Your task to perform on an android device: set default search engine in the chrome app Image 0: 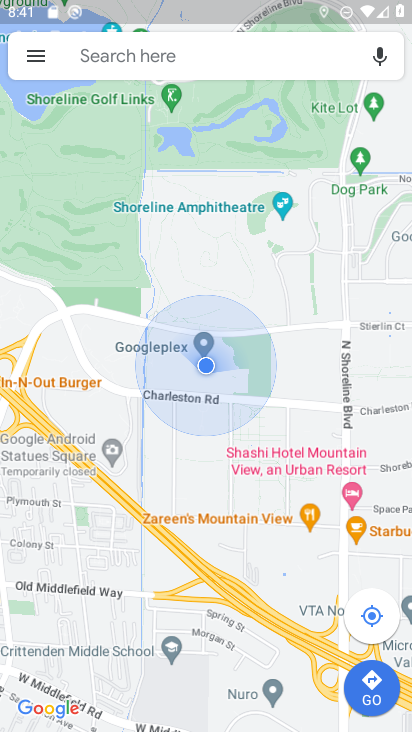
Step 0: press home button
Your task to perform on an android device: set default search engine in the chrome app Image 1: 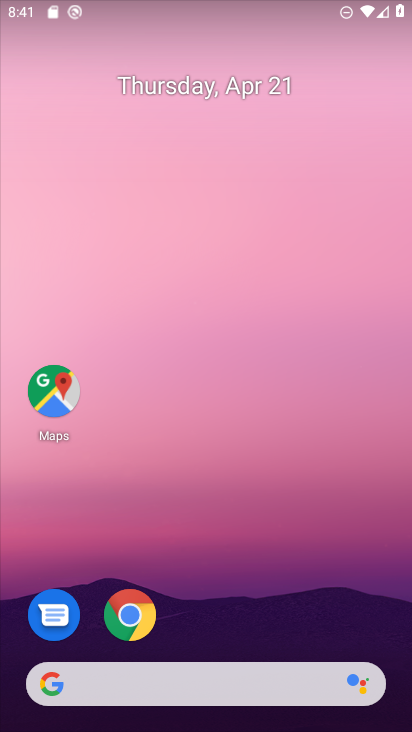
Step 1: drag from (337, 593) to (325, 32)
Your task to perform on an android device: set default search engine in the chrome app Image 2: 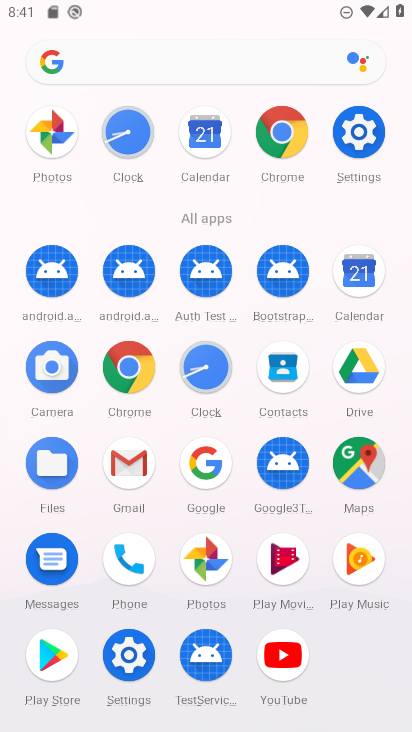
Step 2: click (285, 128)
Your task to perform on an android device: set default search engine in the chrome app Image 3: 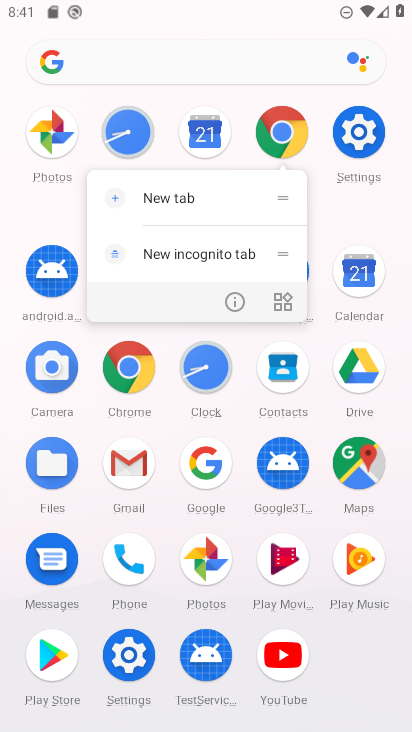
Step 3: click (285, 128)
Your task to perform on an android device: set default search engine in the chrome app Image 4: 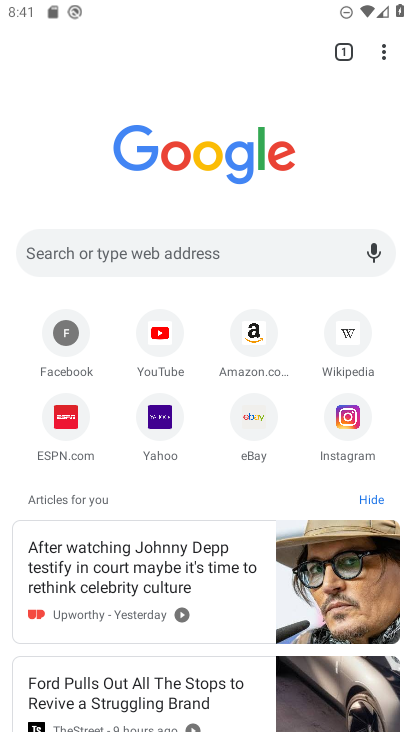
Step 4: drag from (386, 59) to (205, 446)
Your task to perform on an android device: set default search engine in the chrome app Image 5: 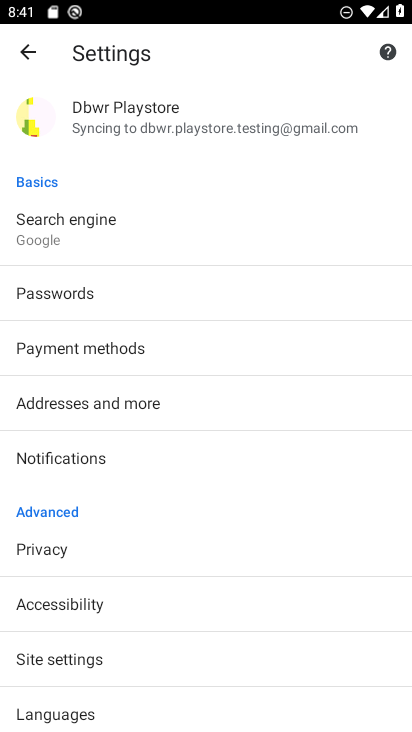
Step 5: drag from (118, 636) to (154, 325)
Your task to perform on an android device: set default search engine in the chrome app Image 6: 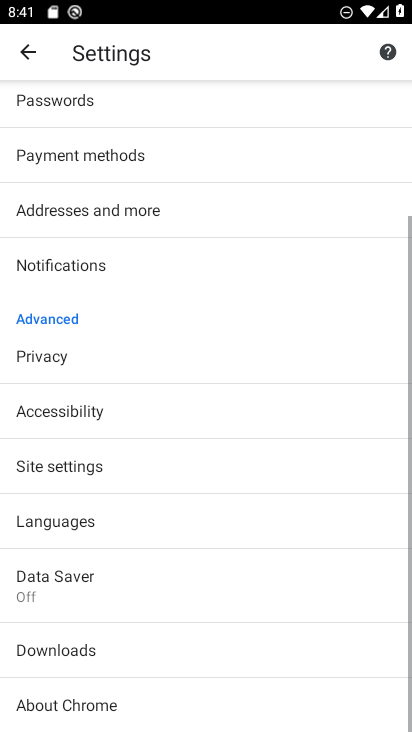
Step 6: drag from (197, 226) to (161, 624)
Your task to perform on an android device: set default search engine in the chrome app Image 7: 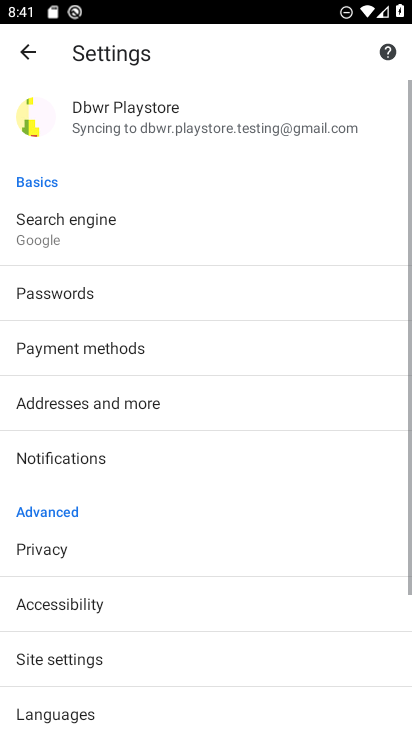
Step 7: click (26, 228)
Your task to perform on an android device: set default search engine in the chrome app Image 8: 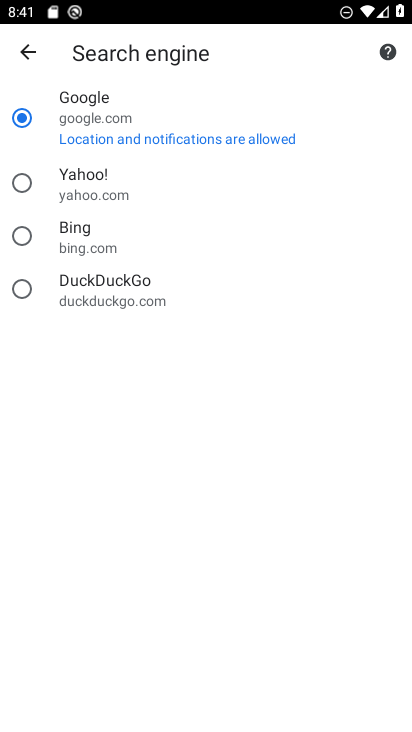
Step 8: task complete